Your task to perform on an android device: remove spam from my inbox in the gmail app Image 0: 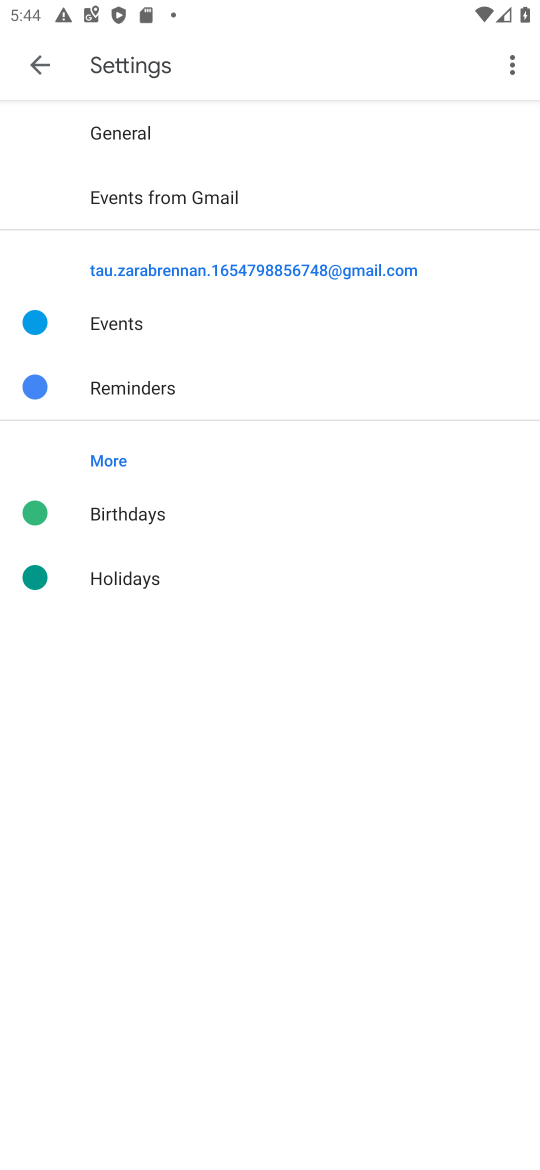
Step 0: press home button
Your task to perform on an android device: remove spam from my inbox in the gmail app Image 1: 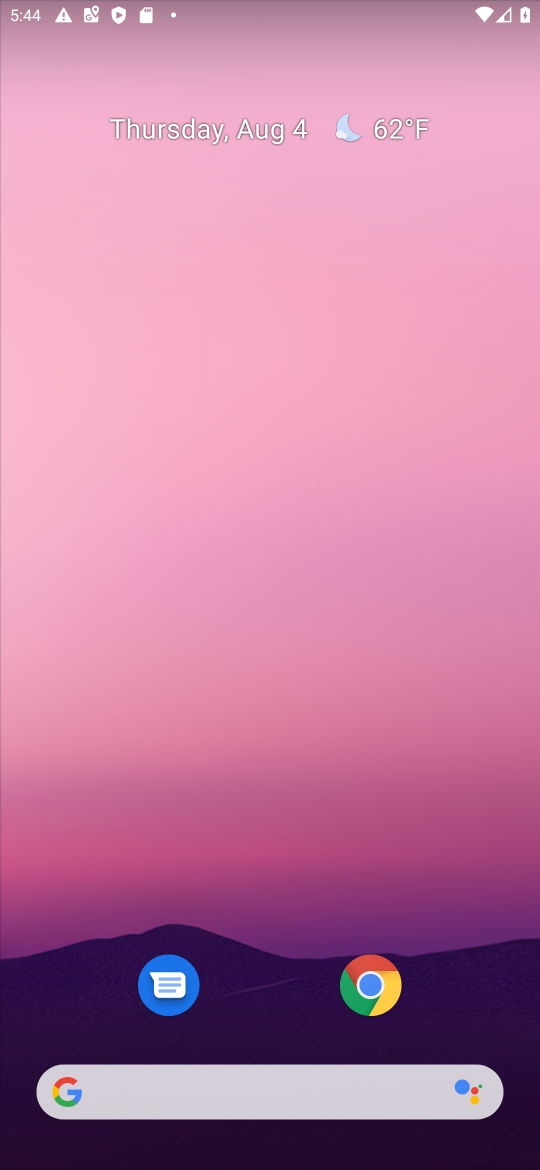
Step 1: drag from (244, 1070) to (291, 110)
Your task to perform on an android device: remove spam from my inbox in the gmail app Image 2: 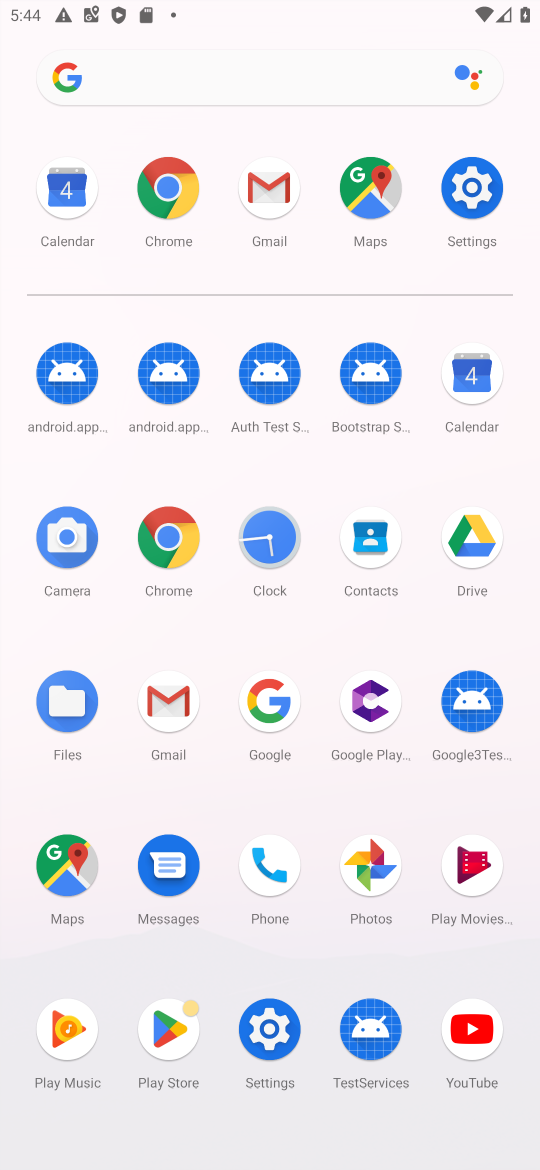
Step 2: click (164, 683)
Your task to perform on an android device: remove spam from my inbox in the gmail app Image 3: 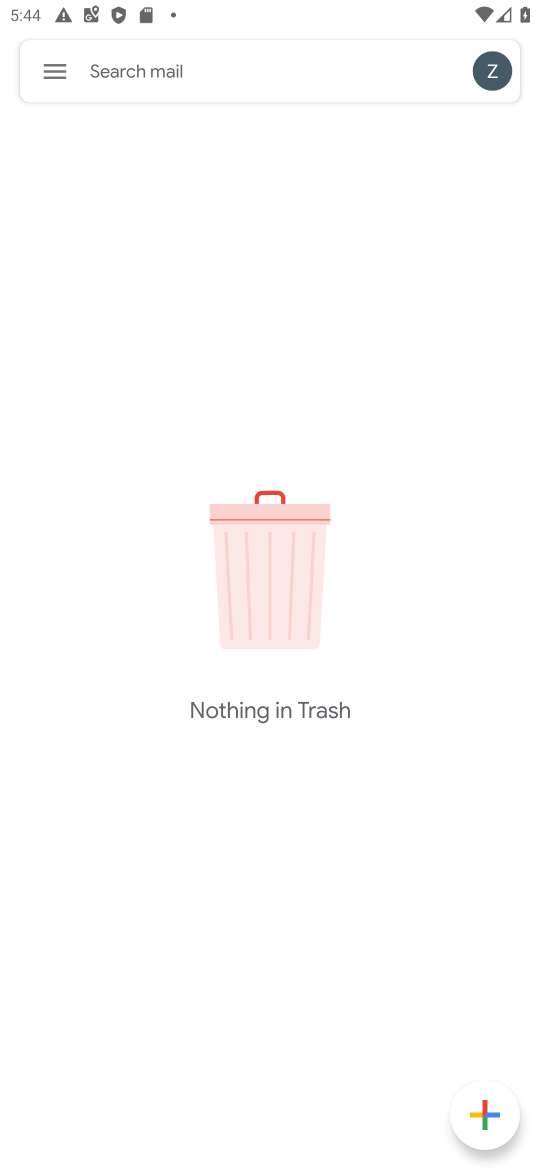
Step 3: click (69, 87)
Your task to perform on an android device: remove spam from my inbox in the gmail app Image 4: 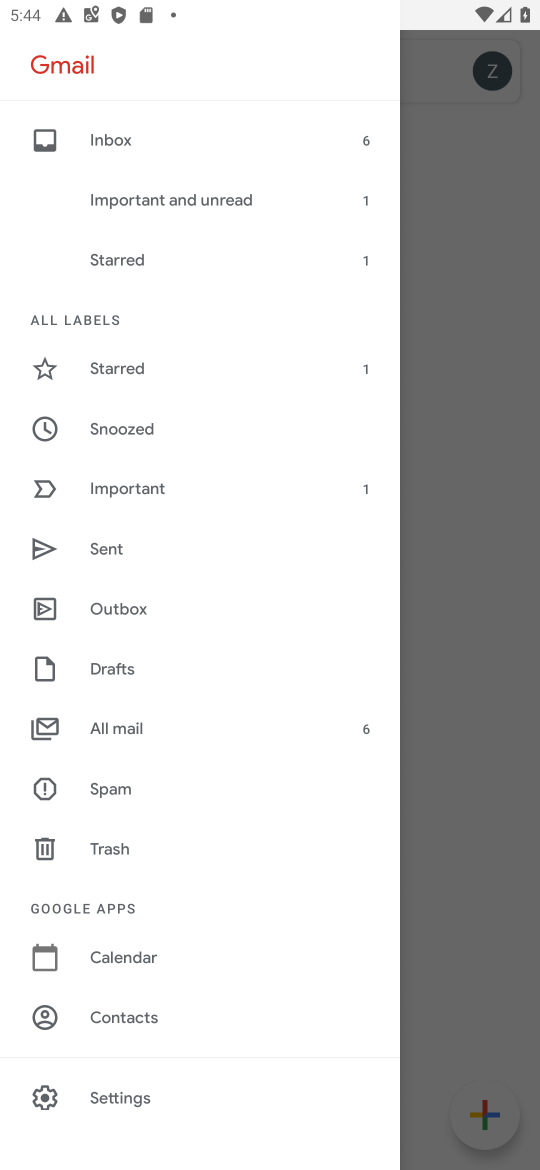
Step 4: click (135, 790)
Your task to perform on an android device: remove spam from my inbox in the gmail app Image 5: 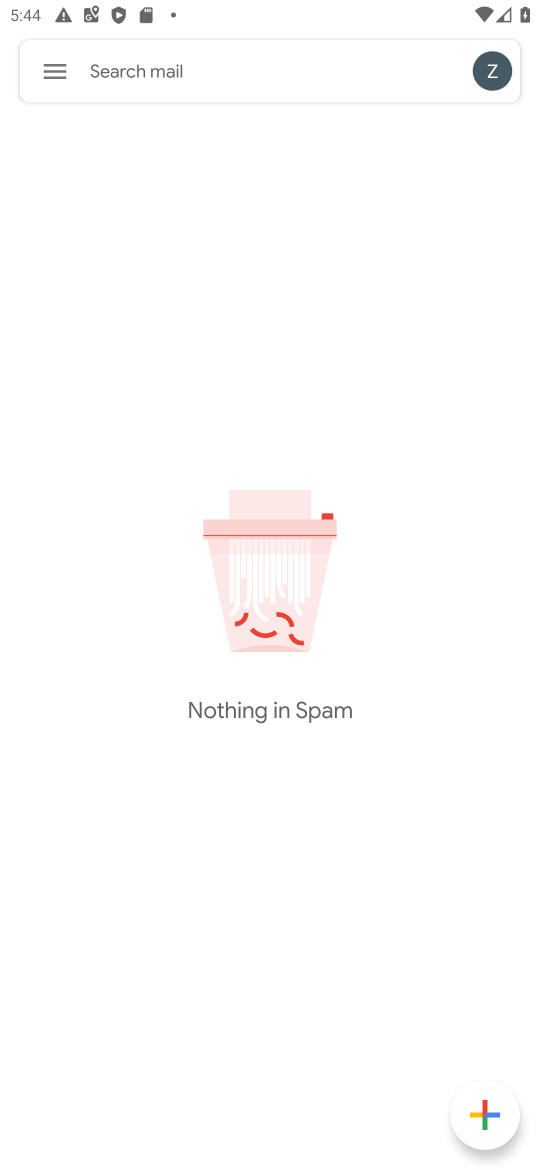
Step 5: task complete